Your task to perform on an android device: Open Chrome and go to settings Image 0: 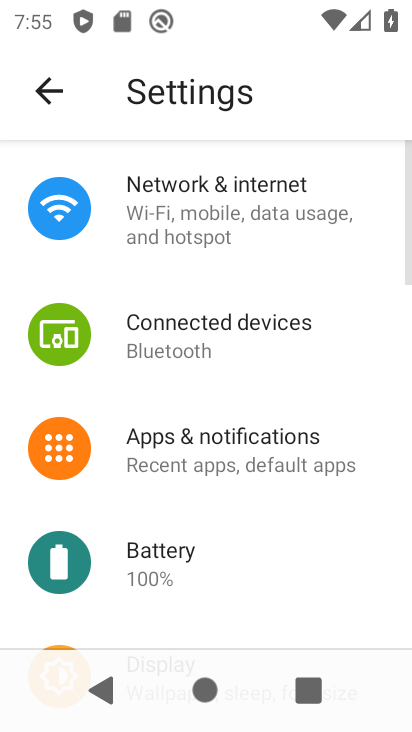
Step 0: press home button
Your task to perform on an android device: Open Chrome and go to settings Image 1: 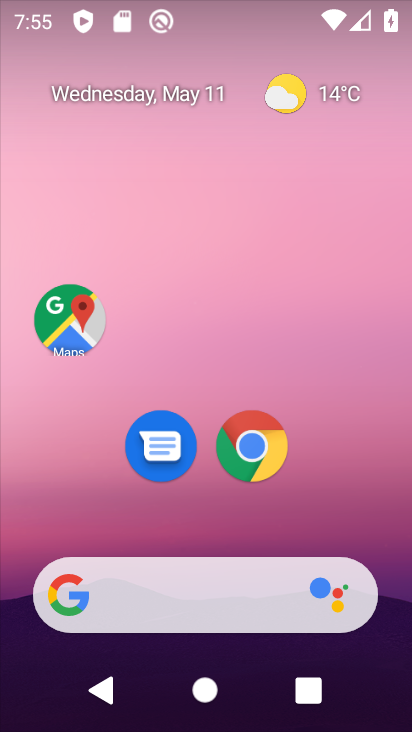
Step 1: click (253, 467)
Your task to perform on an android device: Open Chrome and go to settings Image 2: 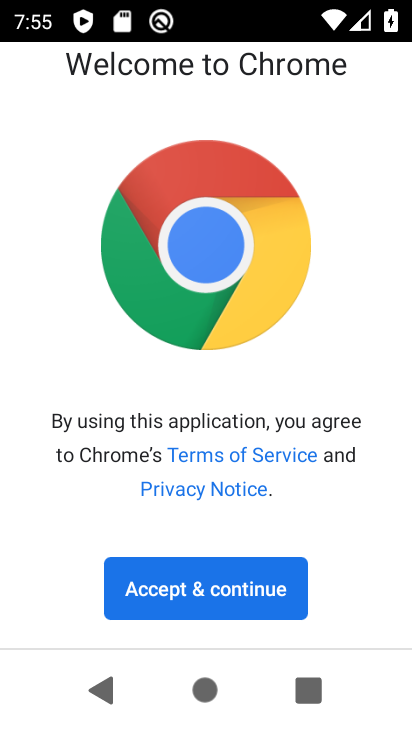
Step 2: click (218, 577)
Your task to perform on an android device: Open Chrome and go to settings Image 3: 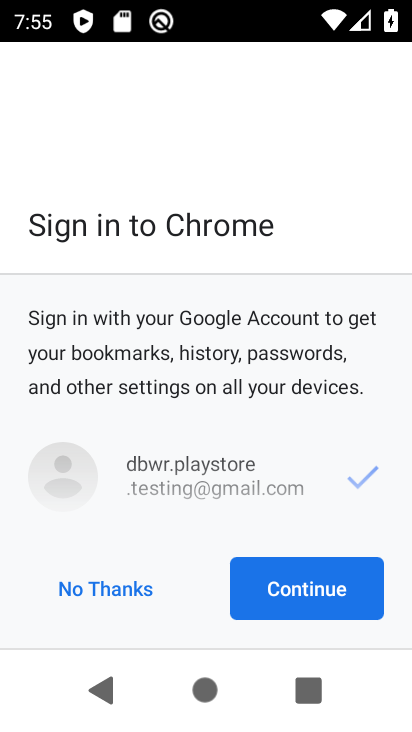
Step 3: click (280, 604)
Your task to perform on an android device: Open Chrome and go to settings Image 4: 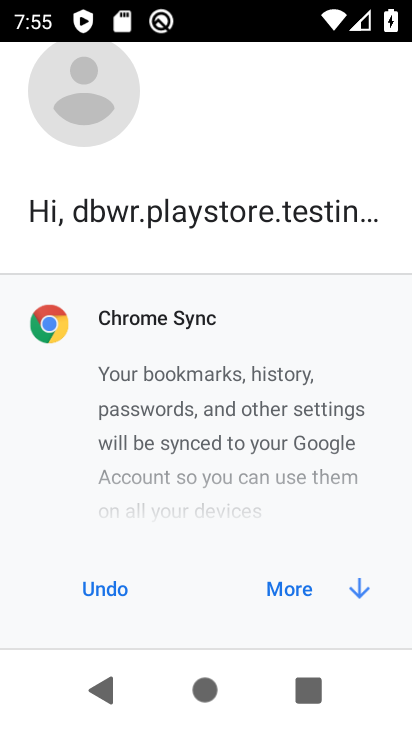
Step 4: click (288, 596)
Your task to perform on an android device: Open Chrome and go to settings Image 5: 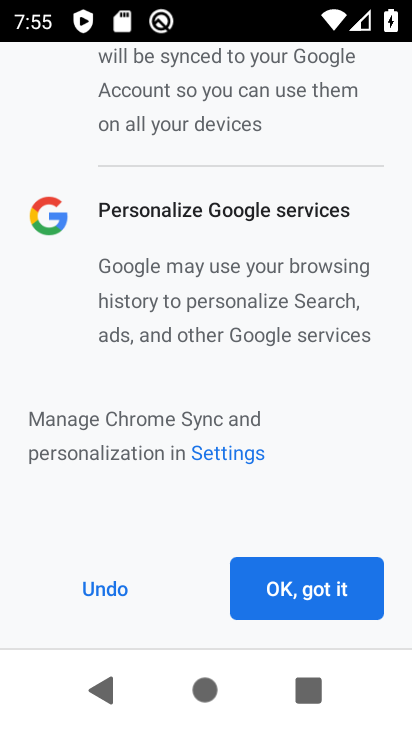
Step 5: click (288, 596)
Your task to perform on an android device: Open Chrome and go to settings Image 6: 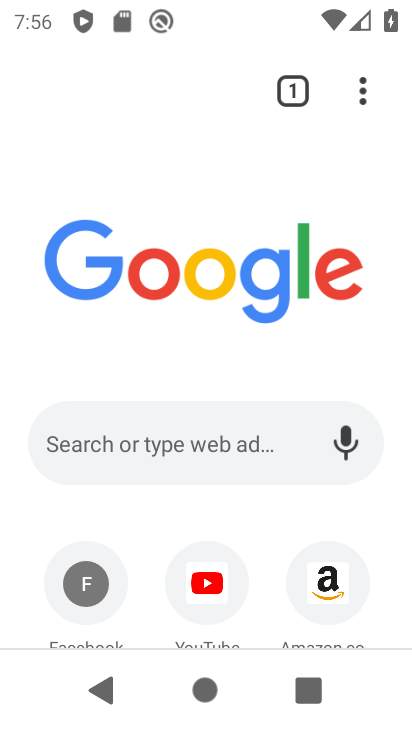
Step 6: click (366, 94)
Your task to perform on an android device: Open Chrome and go to settings Image 7: 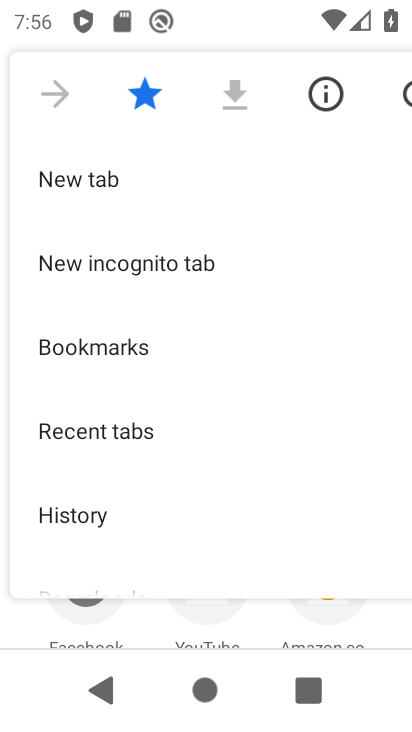
Step 7: drag from (157, 497) to (162, 311)
Your task to perform on an android device: Open Chrome and go to settings Image 8: 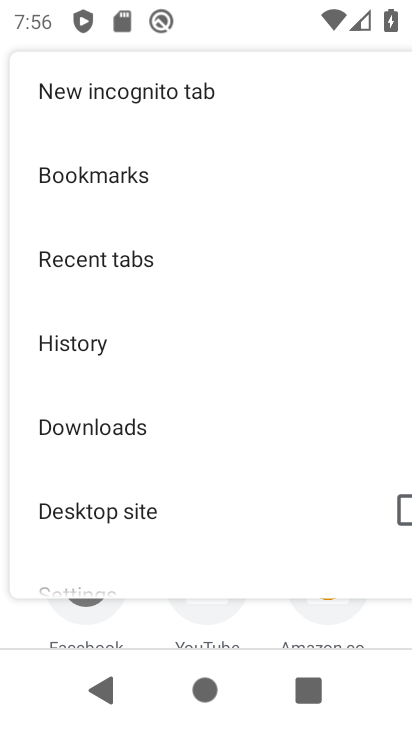
Step 8: drag from (191, 547) to (205, 273)
Your task to perform on an android device: Open Chrome and go to settings Image 9: 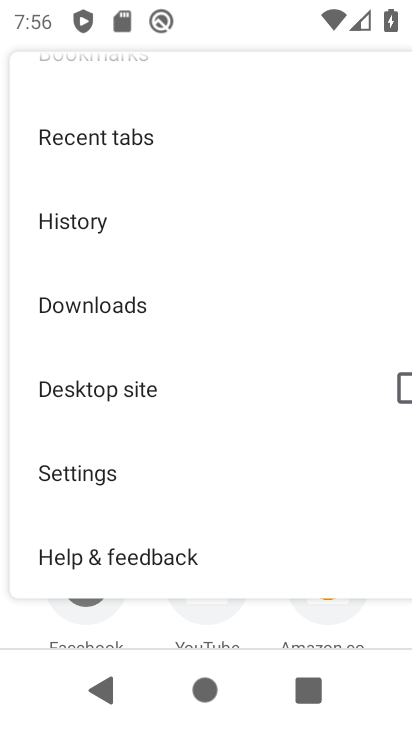
Step 9: click (91, 478)
Your task to perform on an android device: Open Chrome and go to settings Image 10: 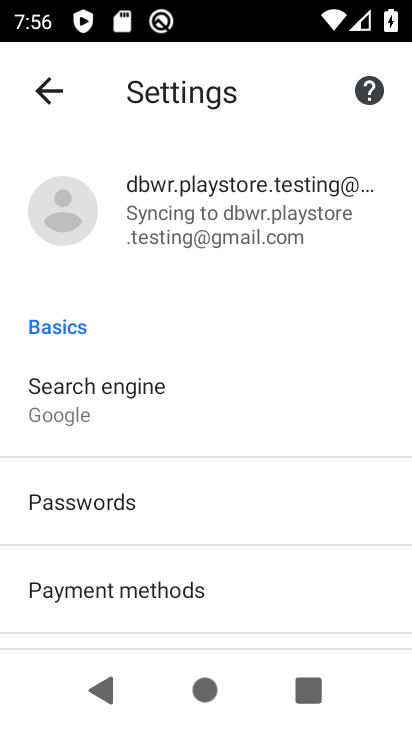
Step 10: task complete